Your task to perform on an android device: toggle location history Image 0: 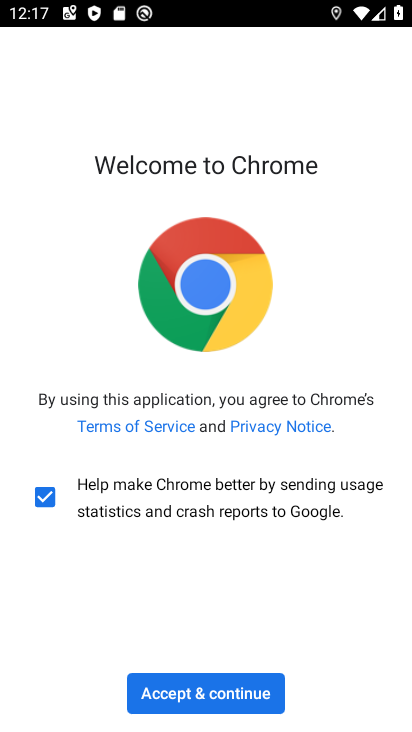
Step 0: click (204, 696)
Your task to perform on an android device: toggle location history Image 1: 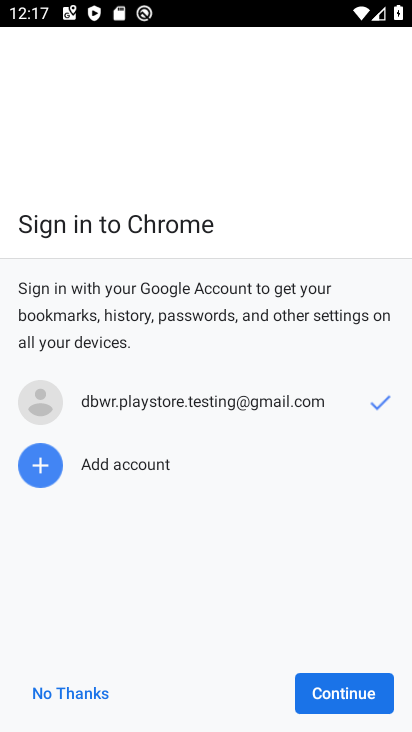
Step 1: press back button
Your task to perform on an android device: toggle location history Image 2: 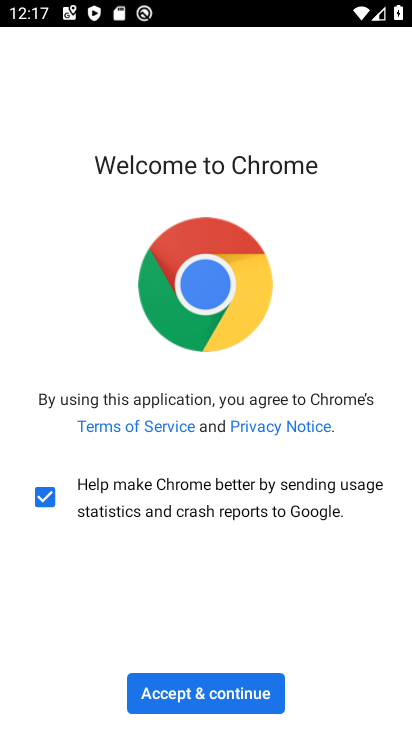
Step 2: press back button
Your task to perform on an android device: toggle location history Image 3: 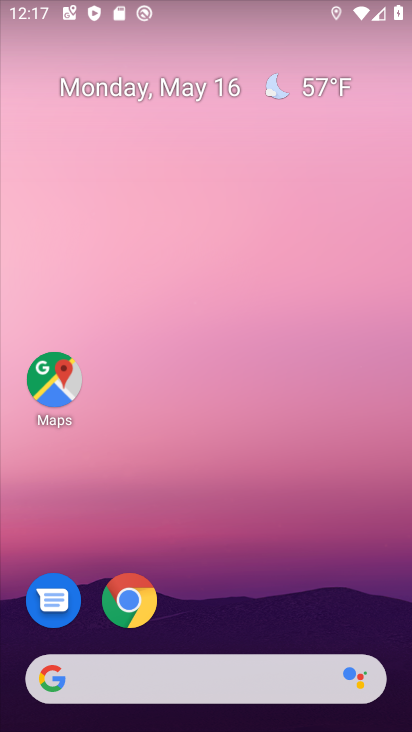
Step 3: press home button
Your task to perform on an android device: toggle location history Image 4: 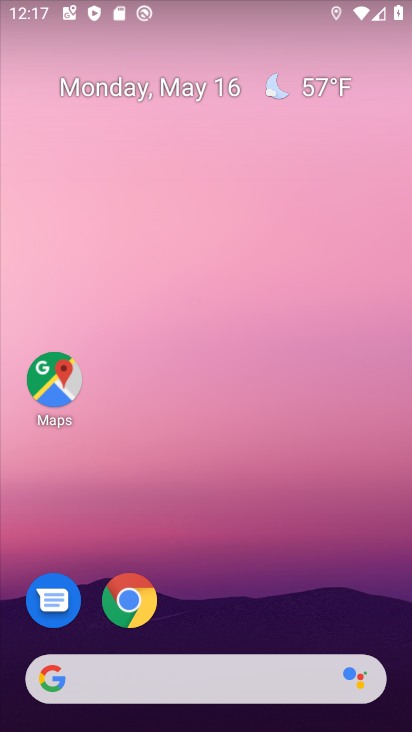
Step 4: drag from (187, 628) to (255, 146)
Your task to perform on an android device: toggle location history Image 5: 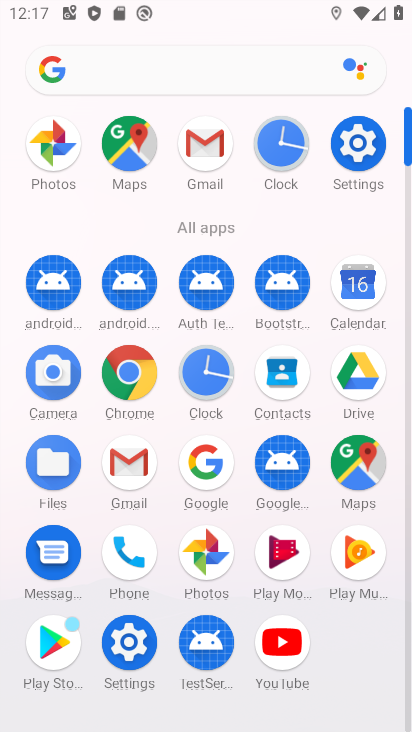
Step 5: click (364, 154)
Your task to perform on an android device: toggle location history Image 6: 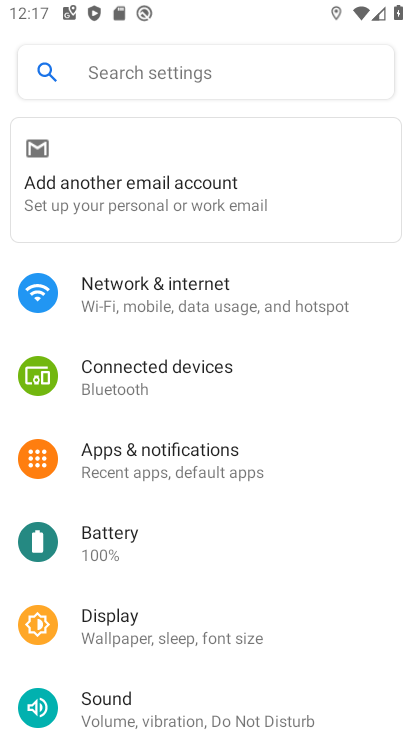
Step 6: drag from (149, 704) to (226, 210)
Your task to perform on an android device: toggle location history Image 7: 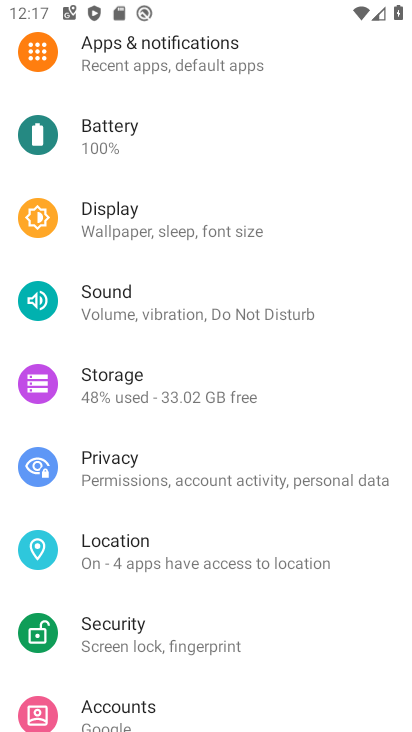
Step 7: click (122, 548)
Your task to perform on an android device: toggle location history Image 8: 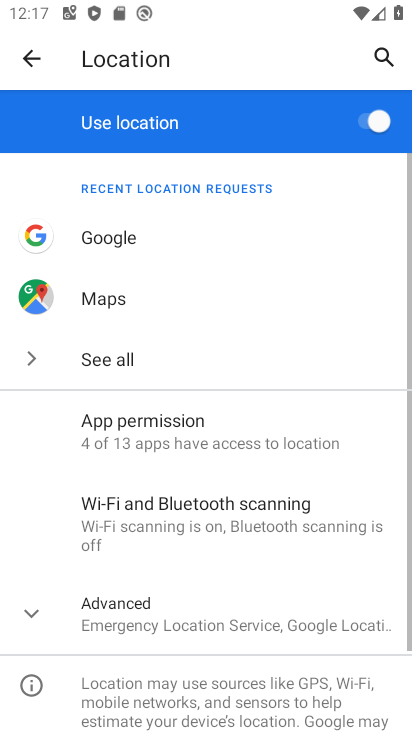
Step 8: click (146, 619)
Your task to perform on an android device: toggle location history Image 9: 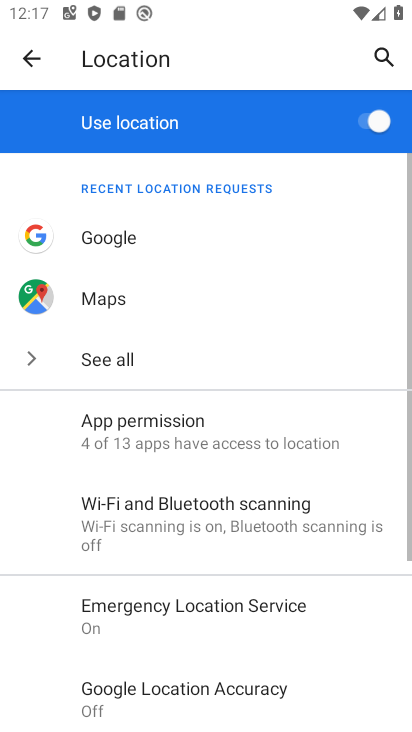
Step 9: drag from (164, 568) to (262, 182)
Your task to perform on an android device: toggle location history Image 10: 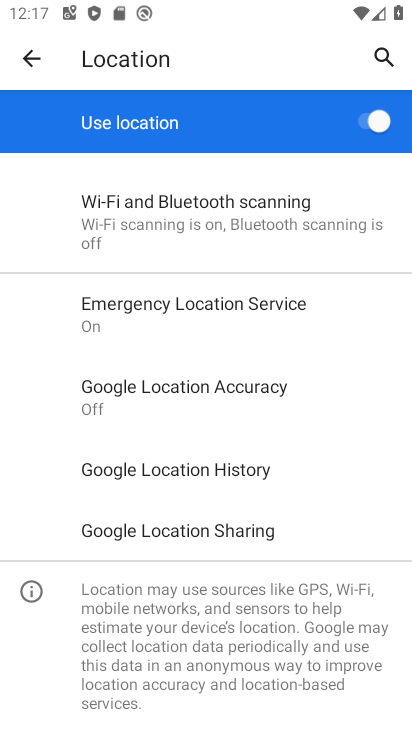
Step 10: click (156, 468)
Your task to perform on an android device: toggle location history Image 11: 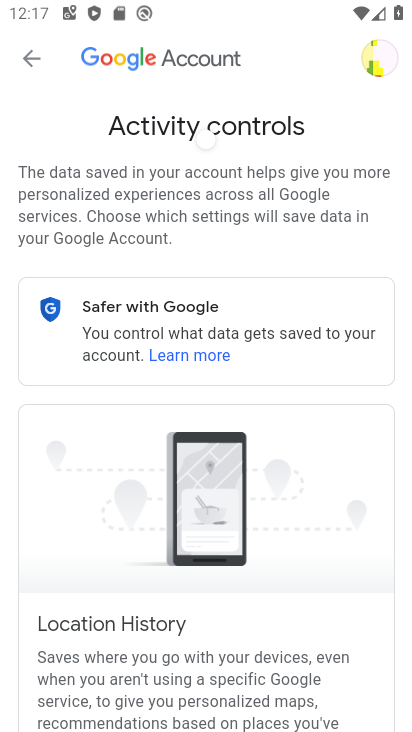
Step 11: drag from (224, 635) to (303, 125)
Your task to perform on an android device: toggle location history Image 12: 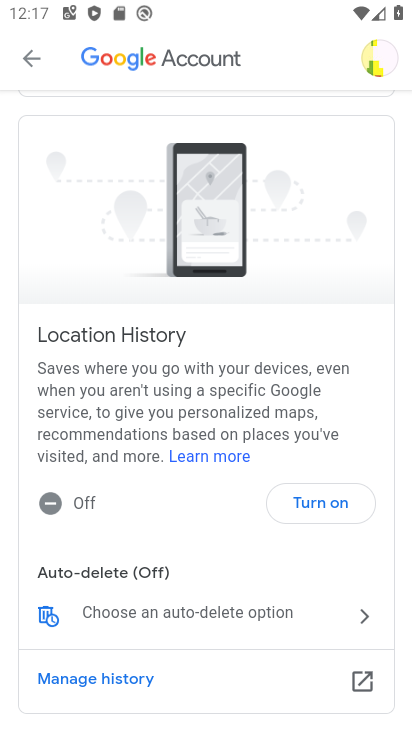
Step 12: click (319, 505)
Your task to perform on an android device: toggle location history Image 13: 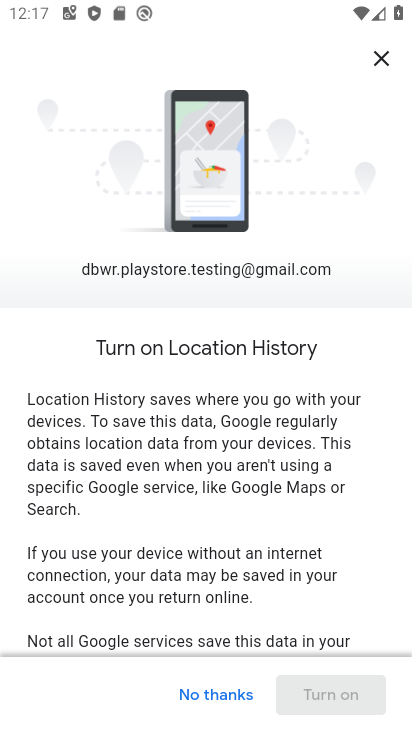
Step 13: drag from (271, 584) to (315, 11)
Your task to perform on an android device: toggle location history Image 14: 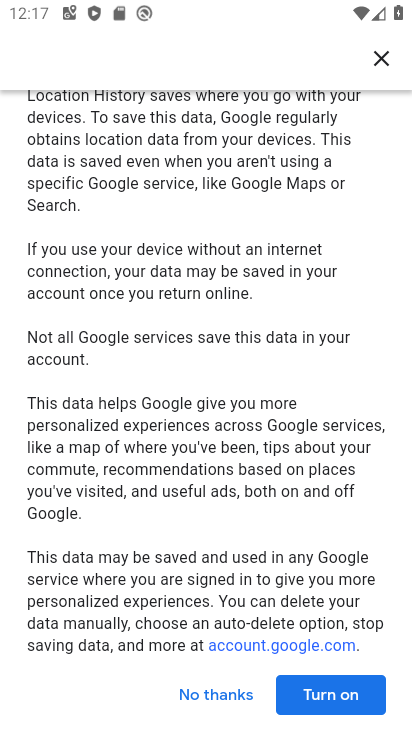
Step 14: drag from (237, 589) to (273, 196)
Your task to perform on an android device: toggle location history Image 15: 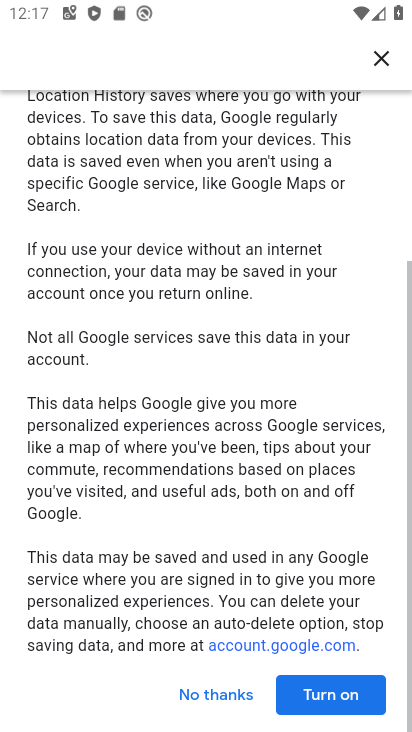
Step 15: click (331, 694)
Your task to perform on an android device: toggle location history Image 16: 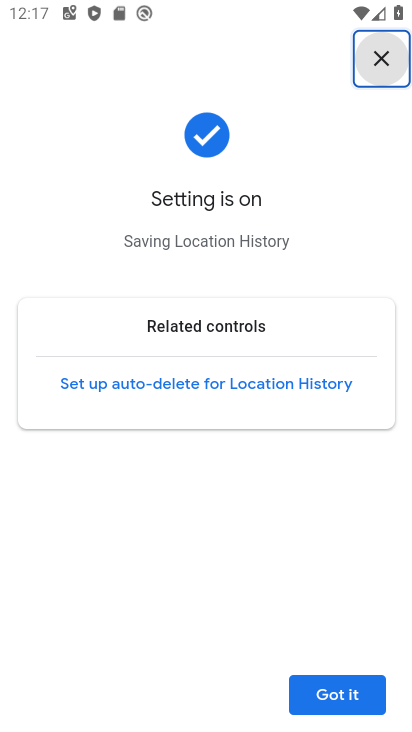
Step 16: click (348, 692)
Your task to perform on an android device: toggle location history Image 17: 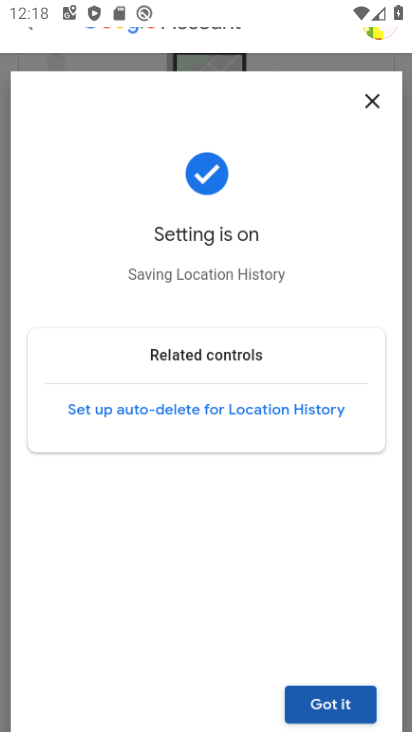
Step 17: task complete